Your task to perform on an android device: check android version Image 0: 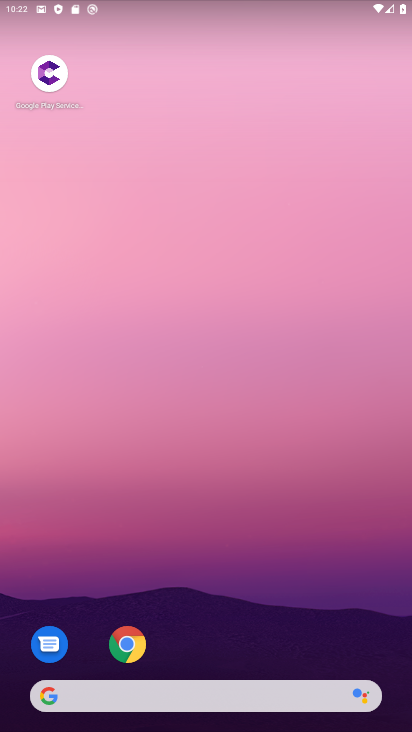
Step 0: drag from (245, 636) to (218, 318)
Your task to perform on an android device: check android version Image 1: 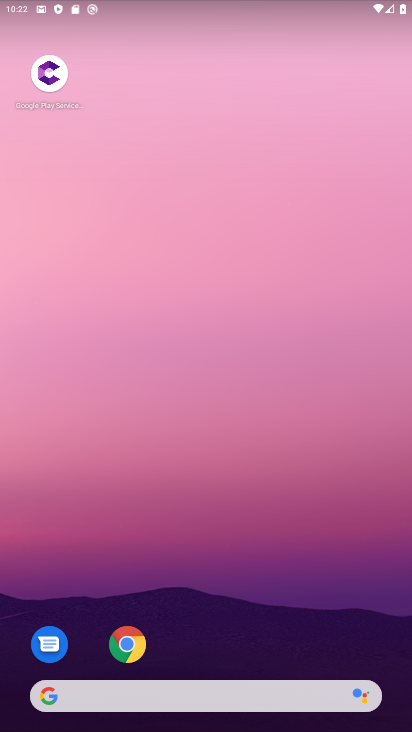
Step 1: drag from (211, 643) to (208, 230)
Your task to perform on an android device: check android version Image 2: 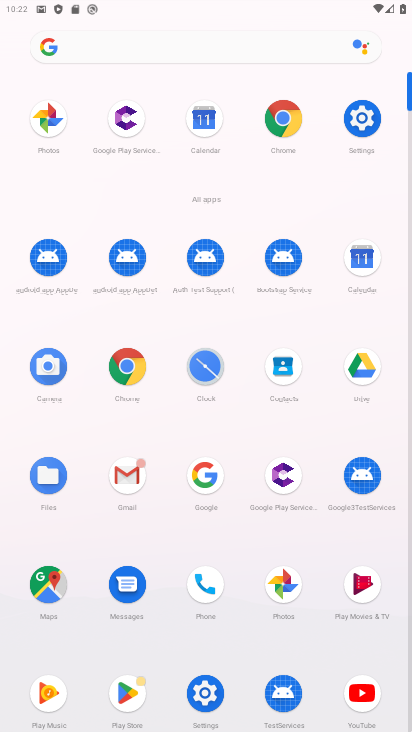
Step 2: click (369, 116)
Your task to perform on an android device: check android version Image 3: 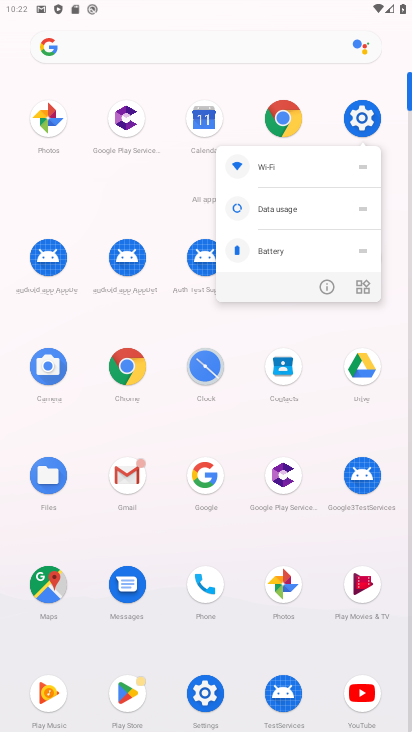
Step 3: click (366, 114)
Your task to perform on an android device: check android version Image 4: 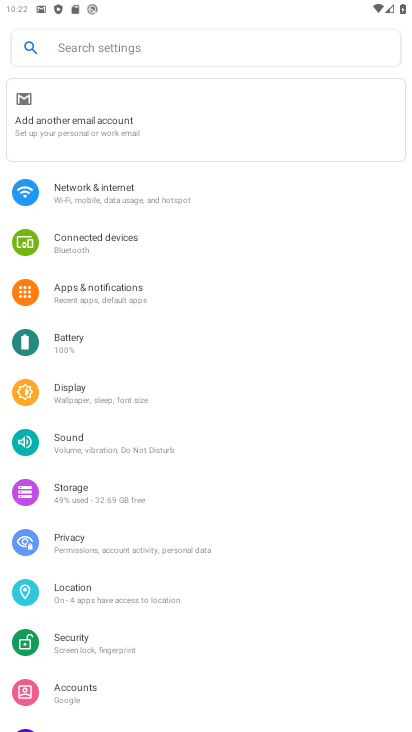
Step 4: drag from (139, 704) to (186, 302)
Your task to perform on an android device: check android version Image 5: 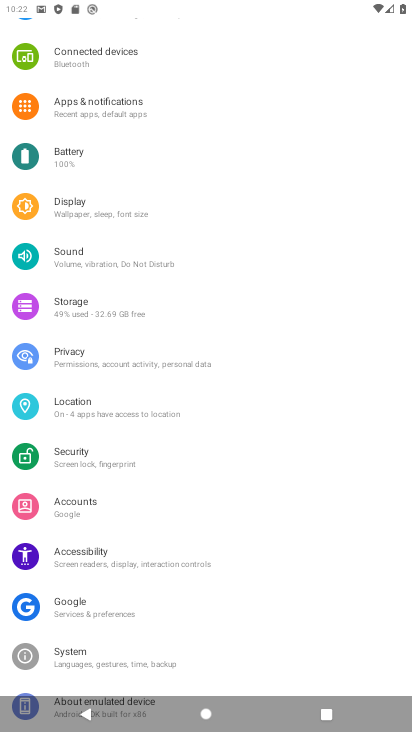
Step 5: drag from (170, 637) to (149, 297)
Your task to perform on an android device: check android version Image 6: 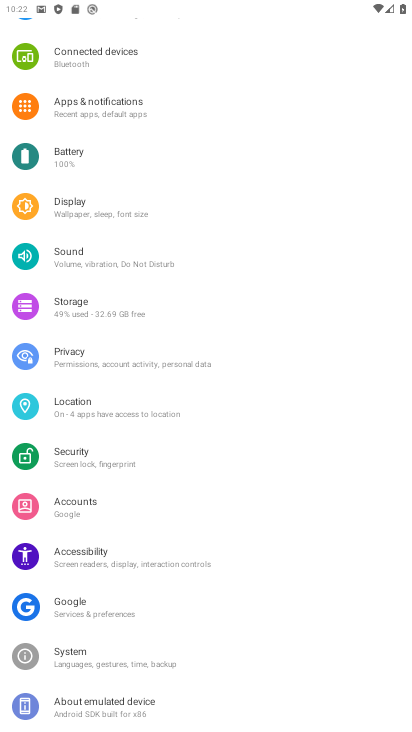
Step 6: click (127, 702)
Your task to perform on an android device: check android version Image 7: 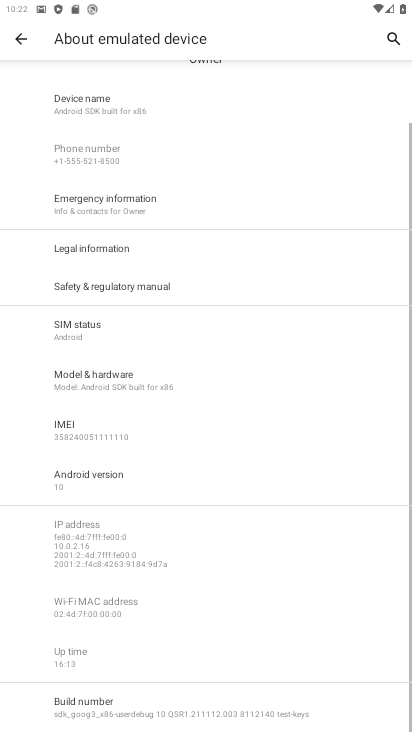
Step 7: drag from (173, 559) to (185, 250)
Your task to perform on an android device: check android version Image 8: 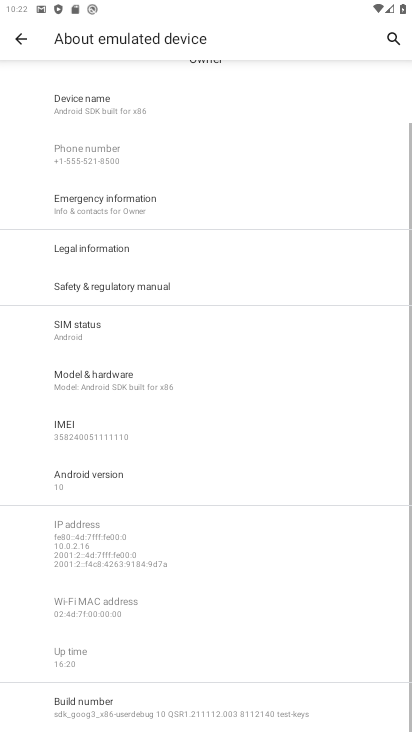
Step 8: click (111, 480)
Your task to perform on an android device: check android version Image 9: 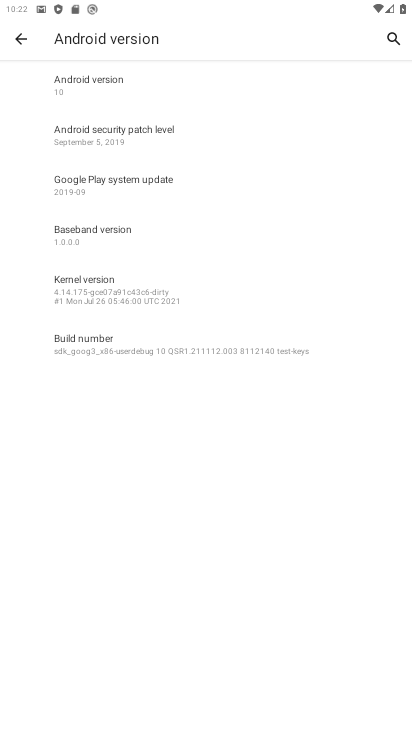
Step 9: click (121, 67)
Your task to perform on an android device: check android version Image 10: 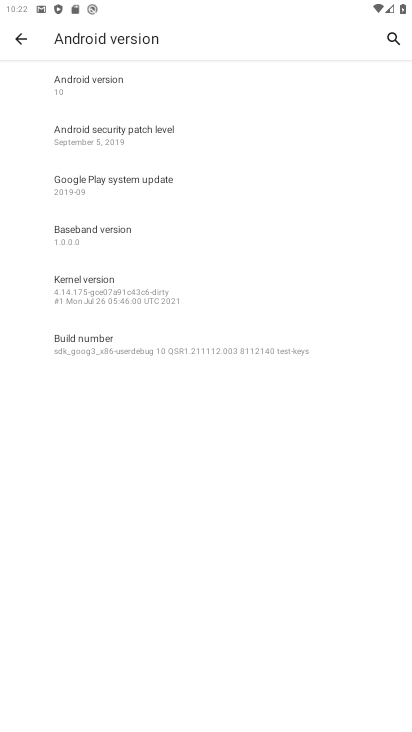
Step 10: task complete